Your task to perform on an android device: change text size in settings app Image 0: 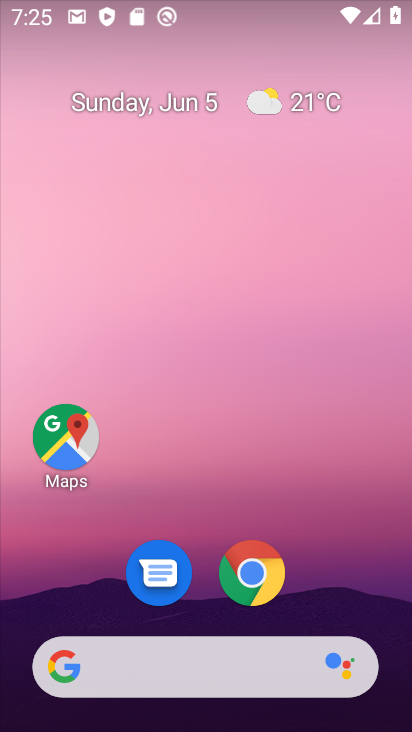
Step 0: drag from (299, 607) to (265, 274)
Your task to perform on an android device: change text size in settings app Image 1: 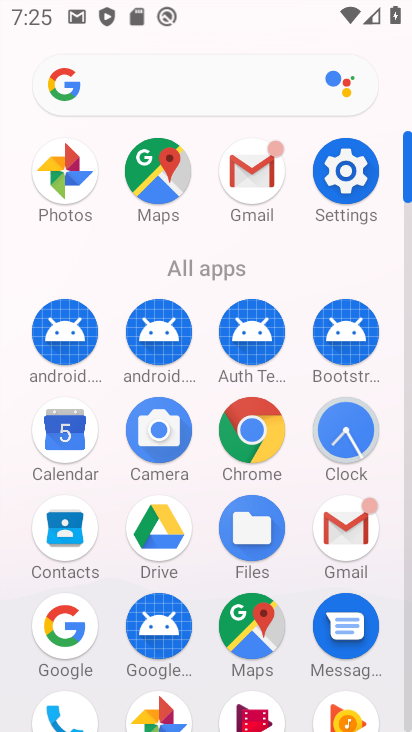
Step 1: click (357, 156)
Your task to perform on an android device: change text size in settings app Image 2: 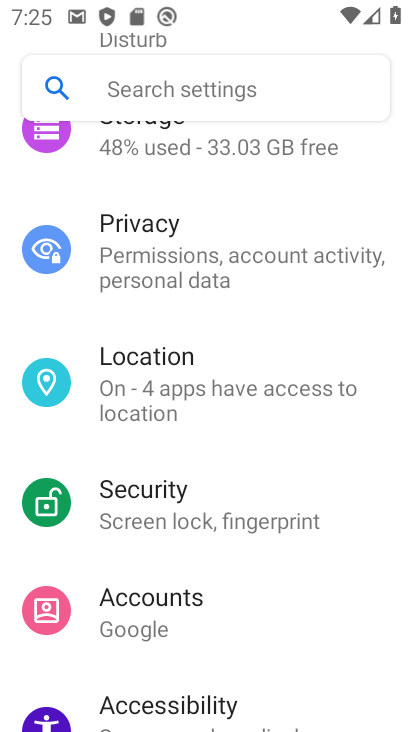
Step 2: drag from (213, 629) to (247, 380)
Your task to perform on an android device: change text size in settings app Image 3: 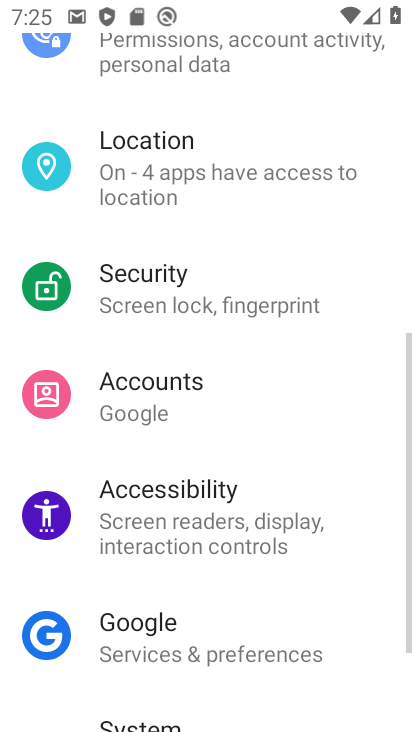
Step 3: drag from (199, 639) to (230, 458)
Your task to perform on an android device: change text size in settings app Image 4: 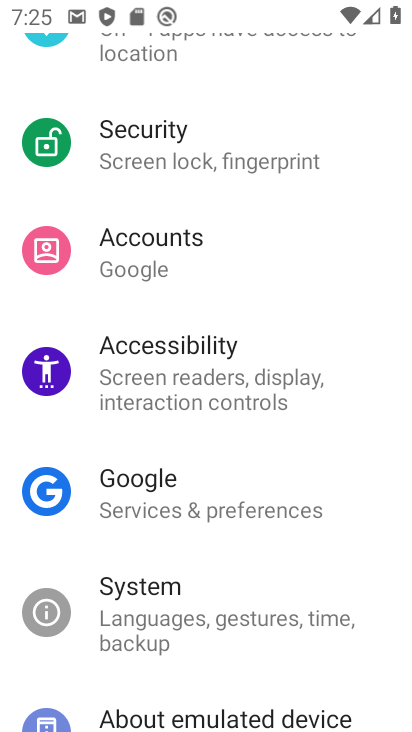
Step 4: click (191, 613)
Your task to perform on an android device: change text size in settings app Image 5: 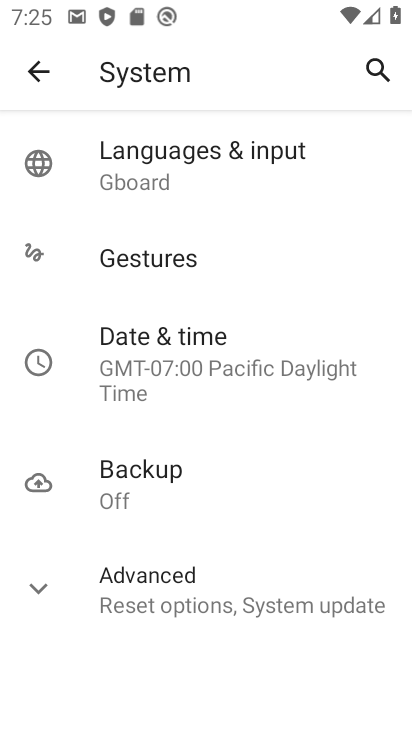
Step 5: click (45, 74)
Your task to perform on an android device: change text size in settings app Image 6: 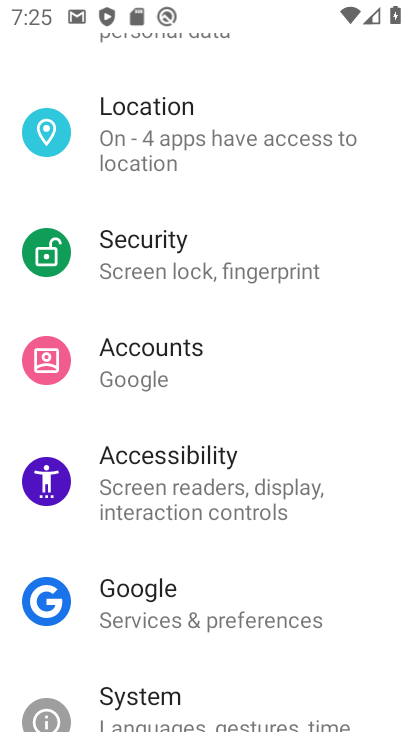
Step 6: click (178, 574)
Your task to perform on an android device: change text size in settings app Image 7: 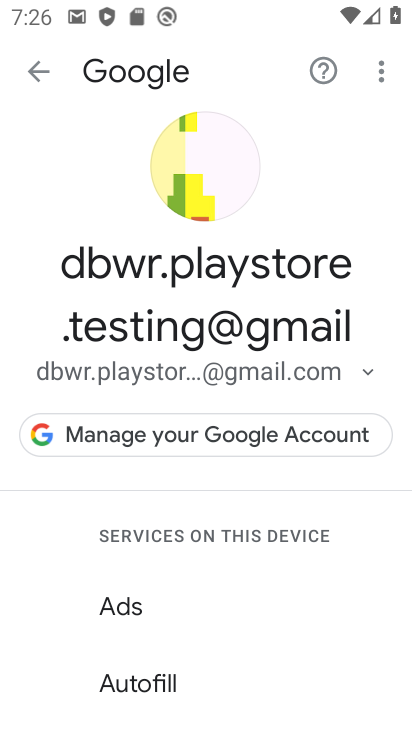
Step 7: click (32, 47)
Your task to perform on an android device: change text size in settings app Image 8: 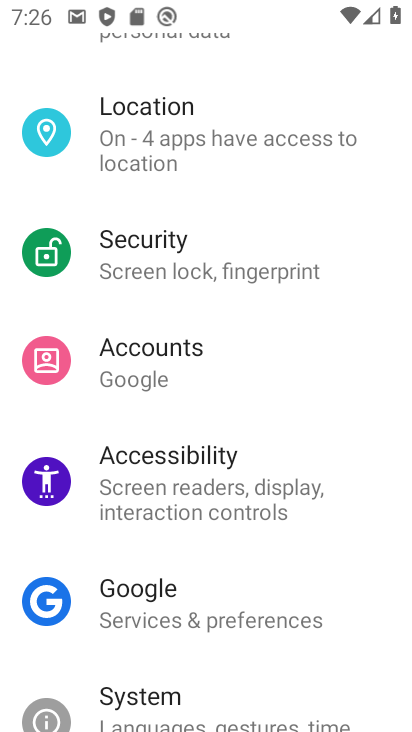
Step 8: drag from (261, 585) to (254, 266)
Your task to perform on an android device: change text size in settings app Image 9: 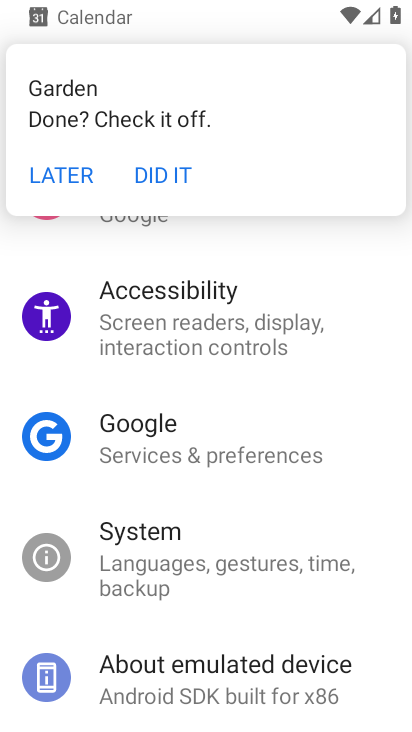
Step 9: click (202, 570)
Your task to perform on an android device: change text size in settings app Image 10: 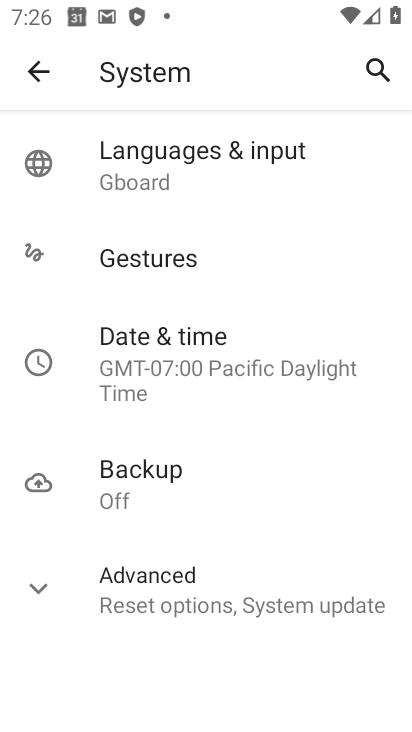
Step 10: click (111, 173)
Your task to perform on an android device: change text size in settings app Image 11: 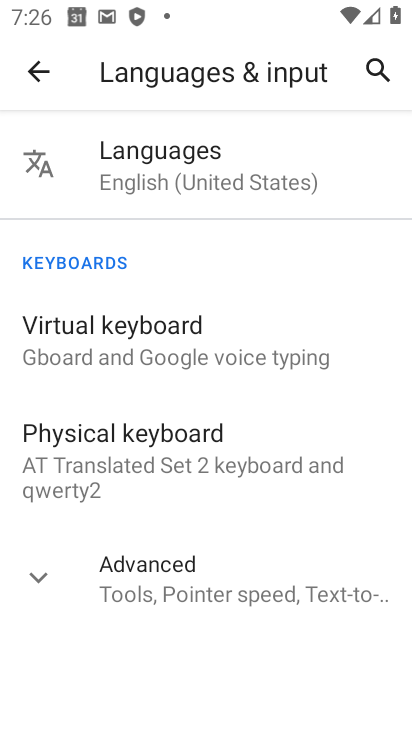
Step 11: click (36, 71)
Your task to perform on an android device: change text size in settings app Image 12: 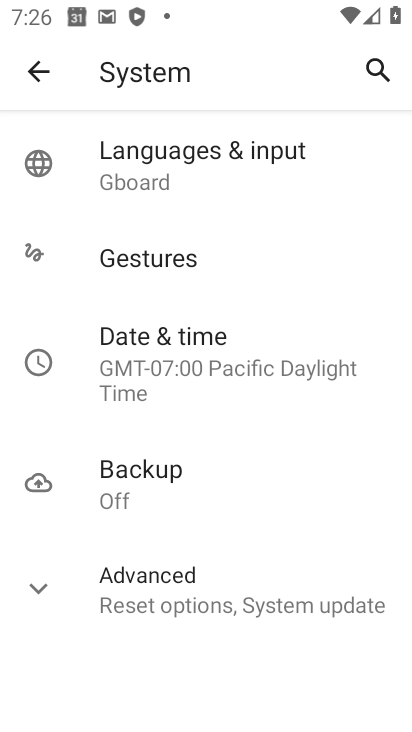
Step 12: task complete